Your task to perform on an android device: Go to Maps Image 0: 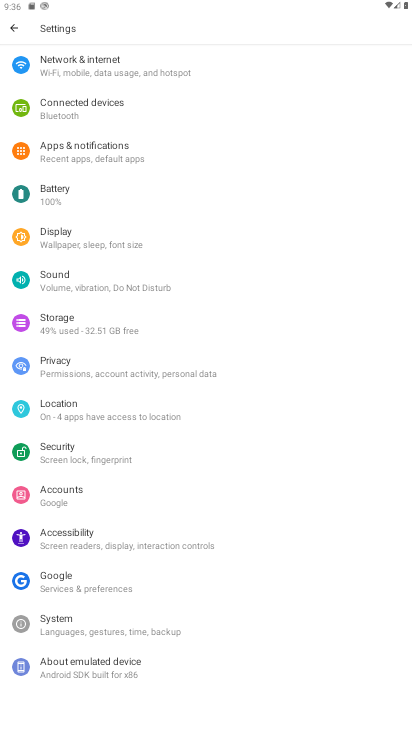
Step 0: press home button
Your task to perform on an android device: Go to Maps Image 1: 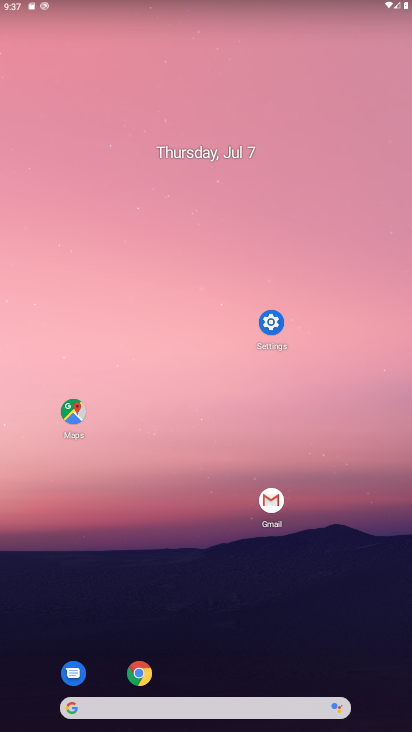
Step 1: click (78, 413)
Your task to perform on an android device: Go to Maps Image 2: 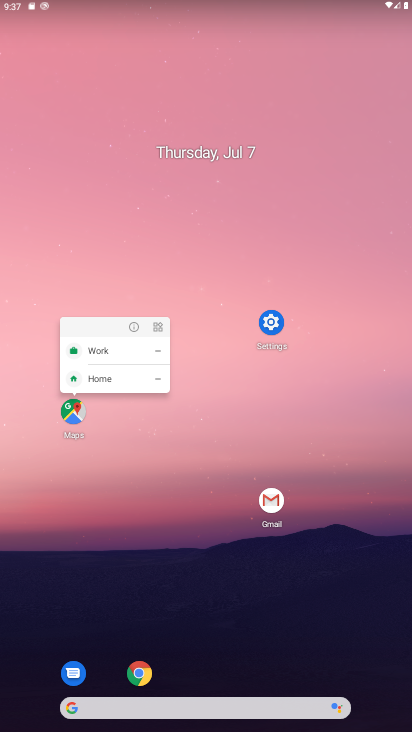
Step 2: click (78, 413)
Your task to perform on an android device: Go to Maps Image 3: 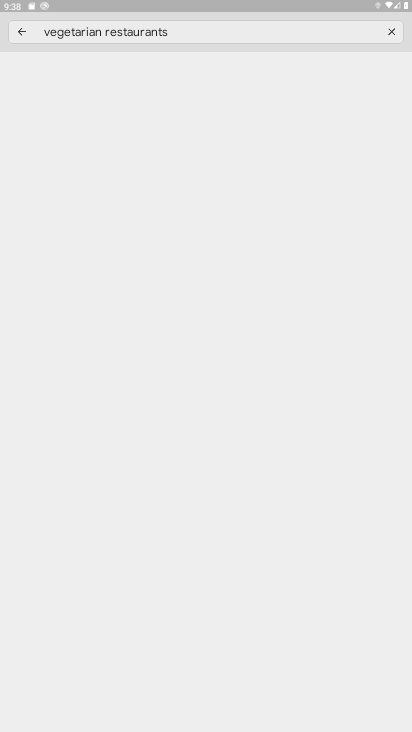
Step 3: click (25, 30)
Your task to perform on an android device: Go to Maps Image 4: 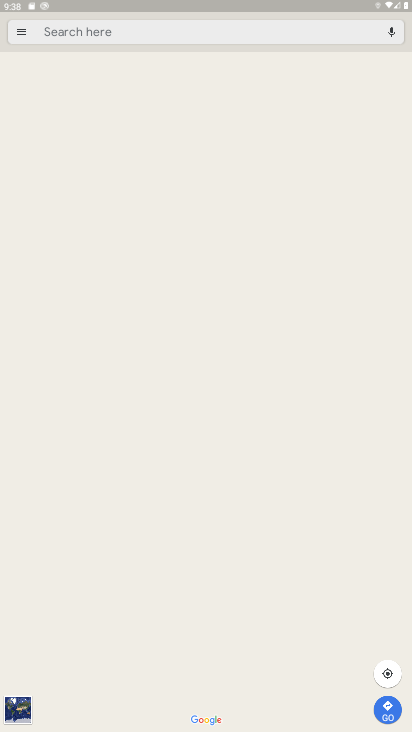
Step 4: click (5, 706)
Your task to perform on an android device: Go to Maps Image 5: 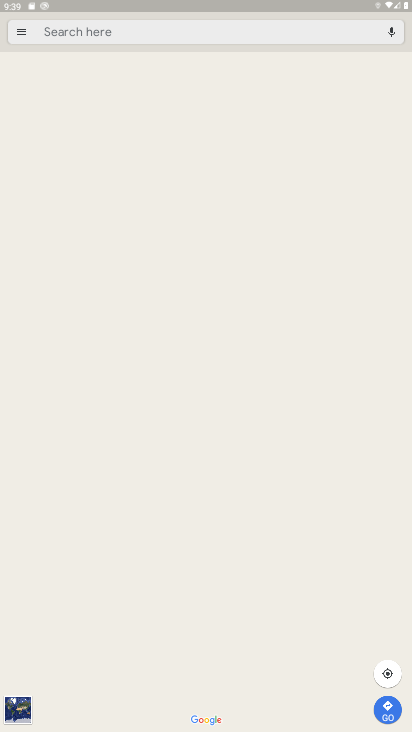
Step 5: task complete